Your task to perform on an android device: empty trash in google photos Image 0: 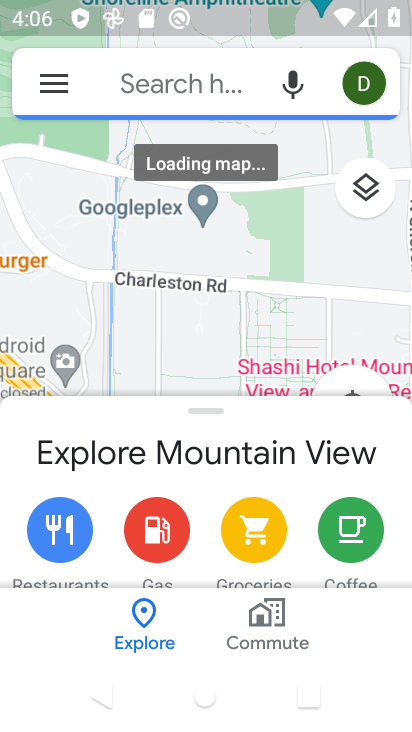
Step 0: press home button
Your task to perform on an android device: empty trash in google photos Image 1: 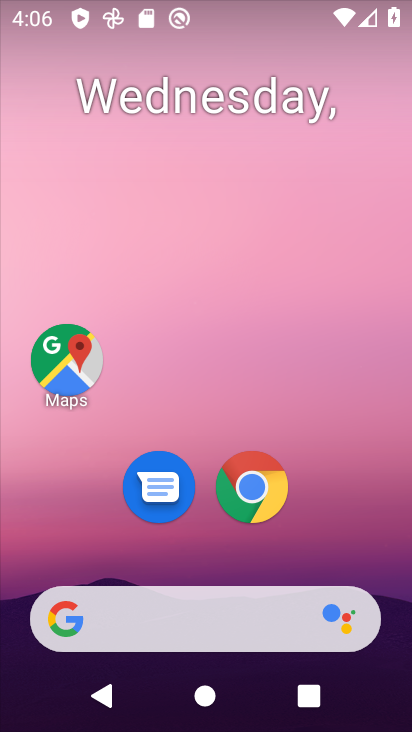
Step 1: drag from (368, 517) to (371, 172)
Your task to perform on an android device: empty trash in google photos Image 2: 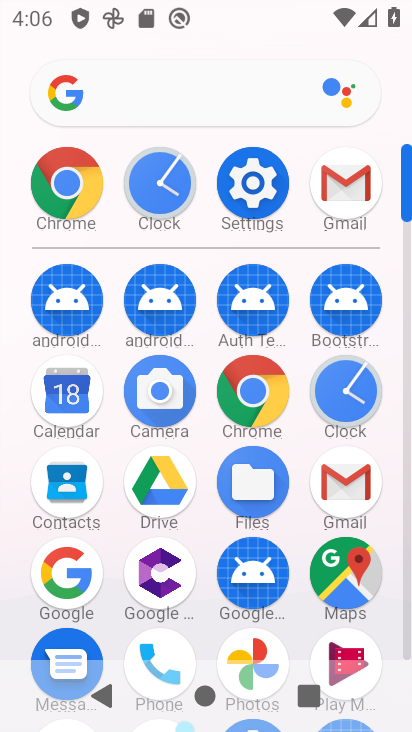
Step 2: click (249, 656)
Your task to perform on an android device: empty trash in google photos Image 3: 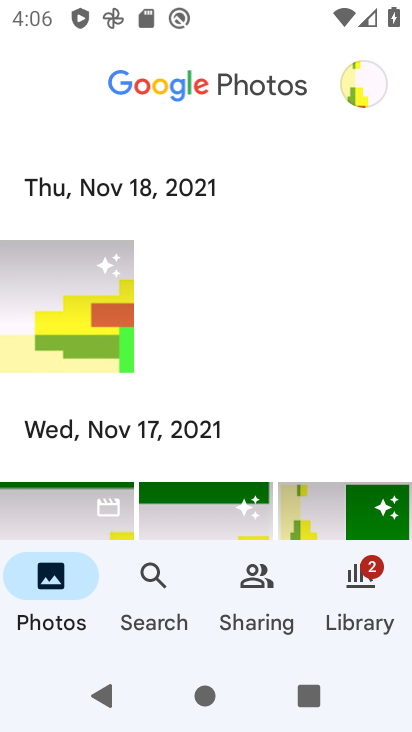
Step 3: click (360, 81)
Your task to perform on an android device: empty trash in google photos Image 4: 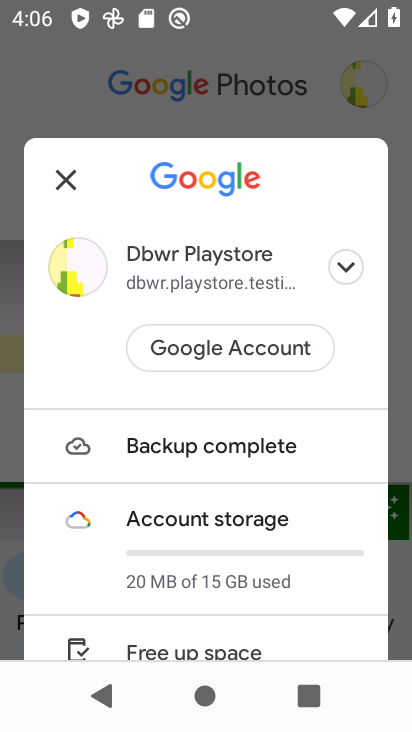
Step 4: drag from (320, 528) to (321, 373)
Your task to perform on an android device: empty trash in google photos Image 5: 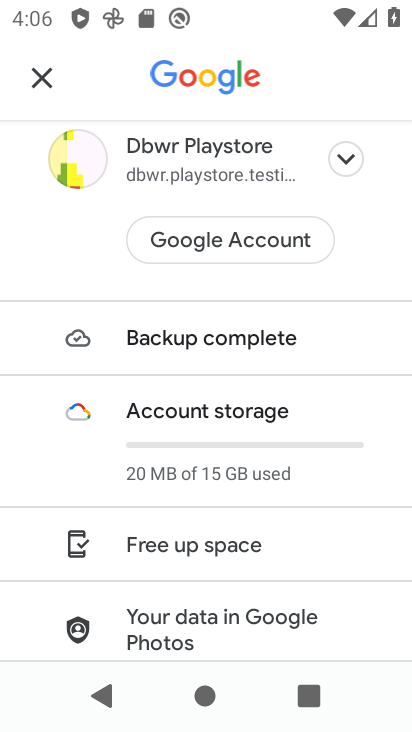
Step 5: click (33, 92)
Your task to perform on an android device: empty trash in google photos Image 6: 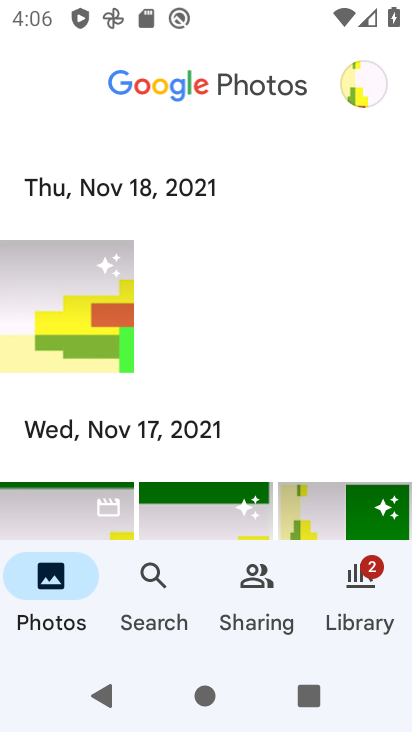
Step 6: click (378, 601)
Your task to perform on an android device: empty trash in google photos Image 7: 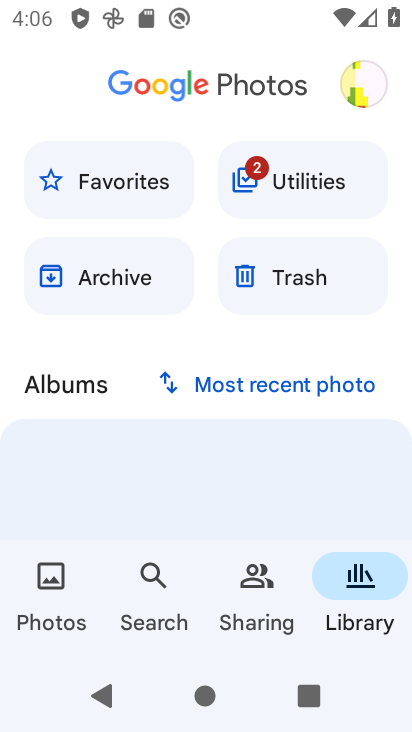
Step 7: click (302, 278)
Your task to perform on an android device: empty trash in google photos Image 8: 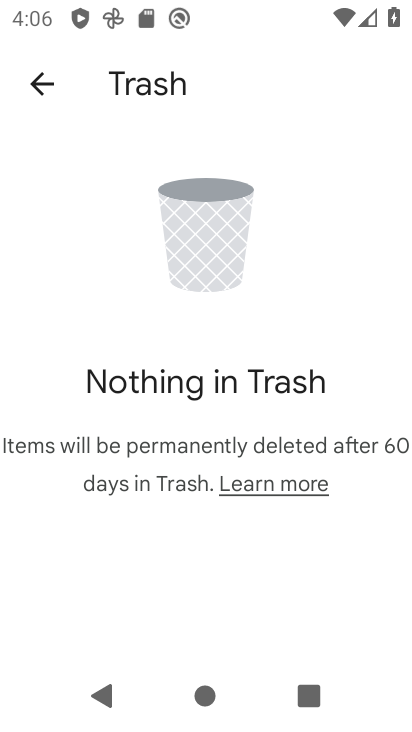
Step 8: task complete